Your task to perform on an android device: Go to Reddit.com Image 0: 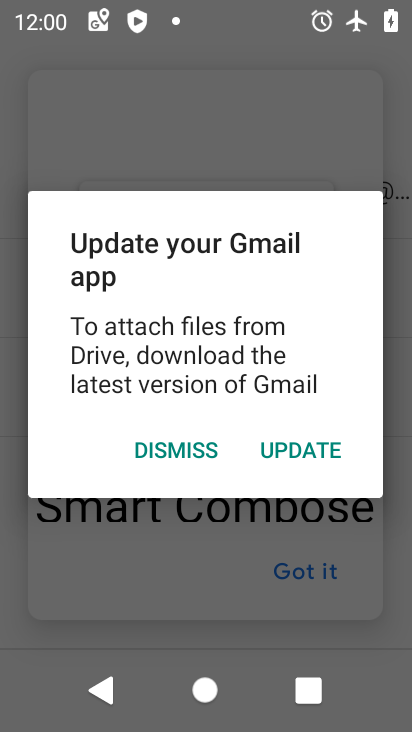
Step 0: press home button
Your task to perform on an android device: Go to Reddit.com Image 1: 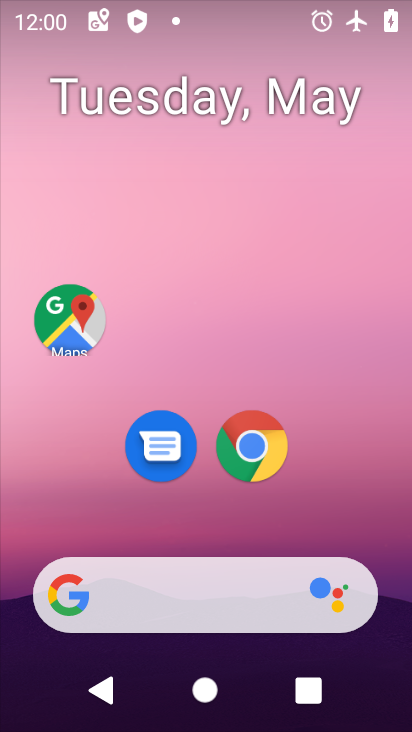
Step 1: drag from (238, 489) to (256, 327)
Your task to perform on an android device: Go to Reddit.com Image 2: 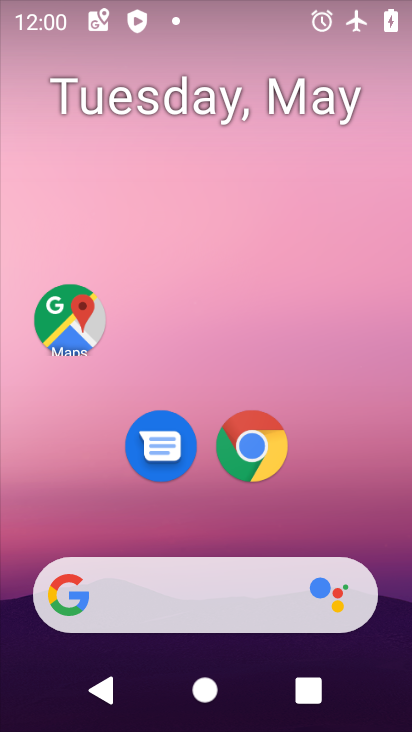
Step 2: click (254, 456)
Your task to perform on an android device: Go to Reddit.com Image 3: 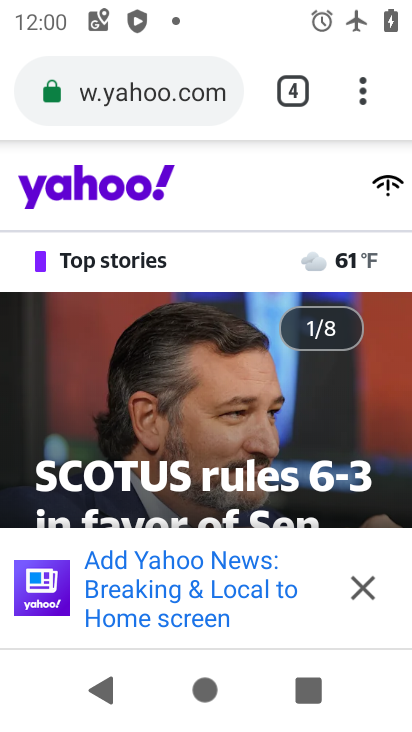
Step 3: click (355, 92)
Your task to perform on an android device: Go to Reddit.com Image 4: 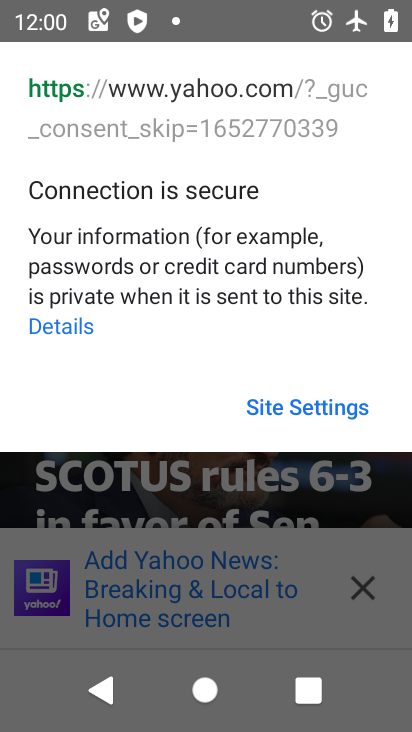
Step 4: press back button
Your task to perform on an android device: Go to Reddit.com Image 5: 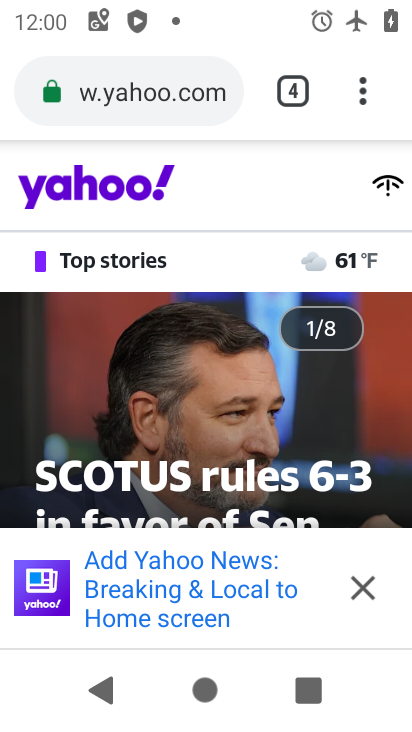
Step 5: click (359, 89)
Your task to perform on an android device: Go to Reddit.com Image 6: 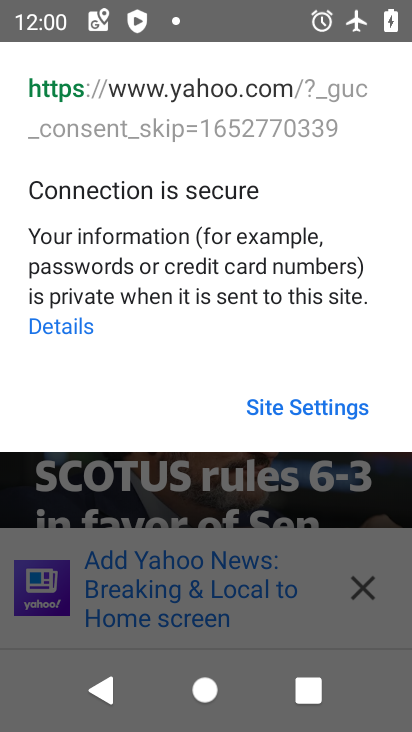
Step 6: press back button
Your task to perform on an android device: Go to Reddit.com Image 7: 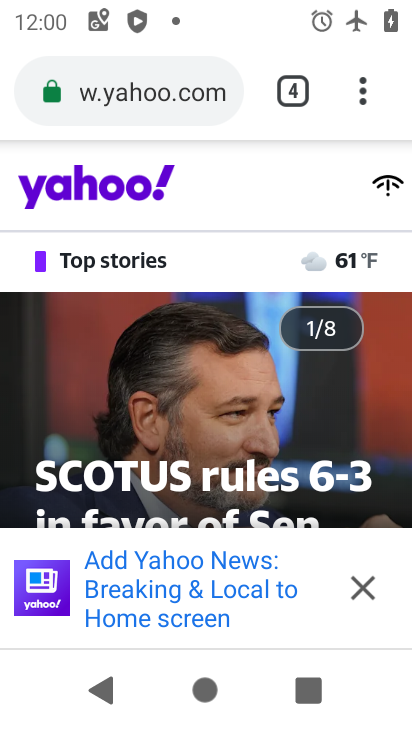
Step 7: click (291, 91)
Your task to perform on an android device: Go to Reddit.com Image 8: 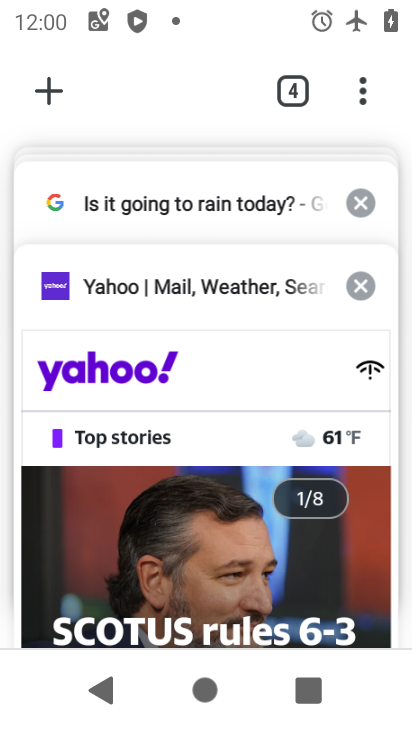
Step 8: drag from (223, 207) to (200, 618)
Your task to perform on an android device: Go to Reddit.com Image 9: 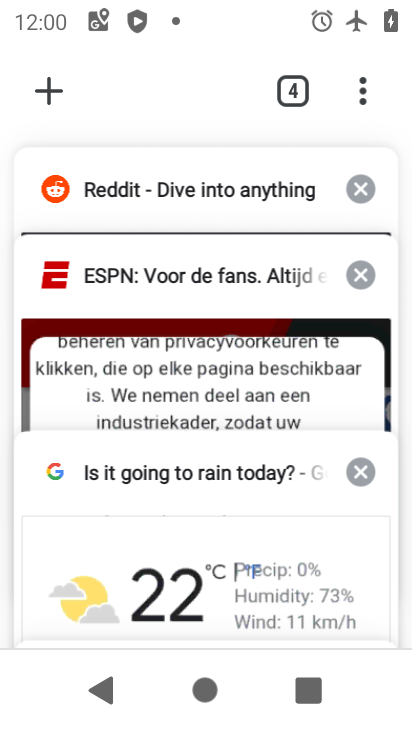
Step 9: click (188, 182)
Your task to perform on an android device: Go to Reddit.com Image 10: 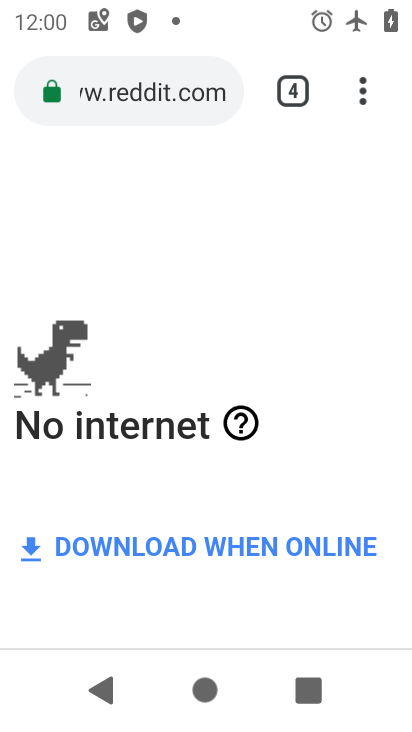
Step 10: drag from (321, 115) to (332, 401)
Your task to perform on an android device: Go to Reddit.com Image 11: 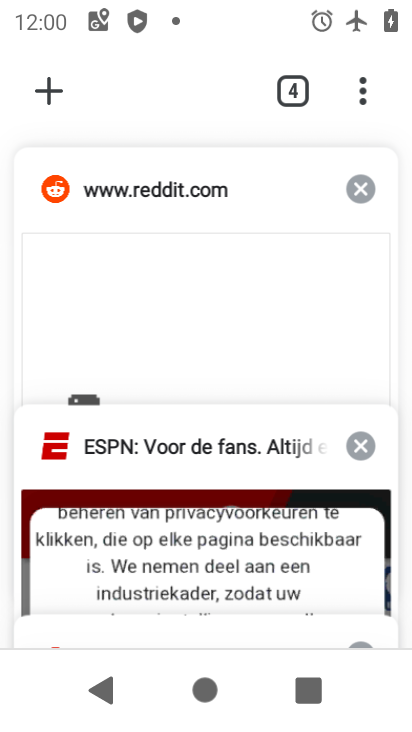
Step 11: click (52, 97)
Your task to perform on an android device: Go to Reddit.com Image 12: 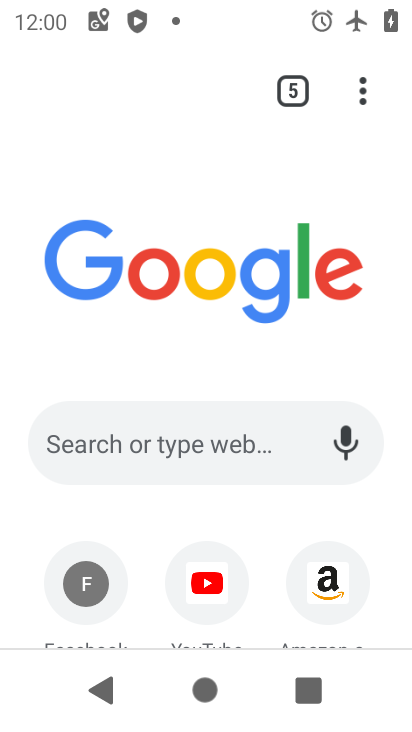
Step 12: click (184, 421)
Your task to perform on an android device: Go to Reddit.com Image 13: 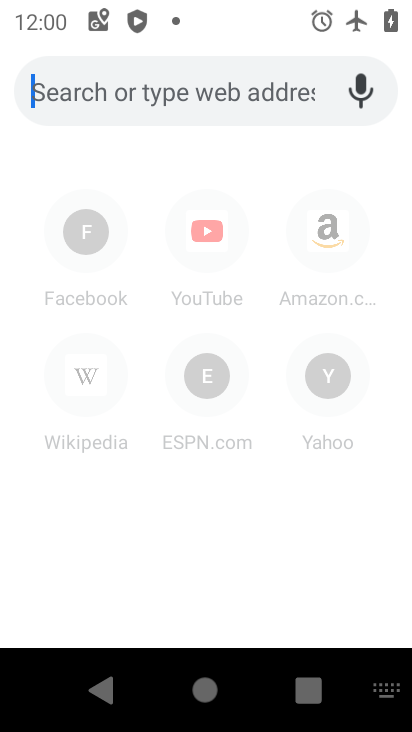
Step 13: click (190, 75)
Your task to perform on an android device: Go to Reddit.com Image 14: 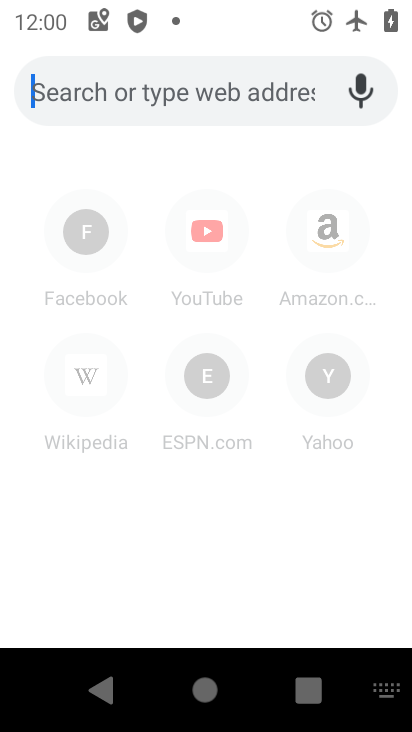
Step 14: type "Reddit.com"
Your task to perform on an android device: Go to Reddit.com Image 15: 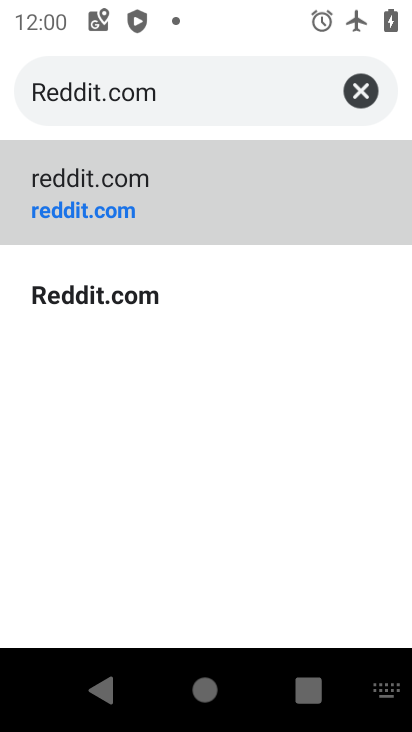
Step 15: click (137, 299)
Your task to perform on an android device: Go to Reddit.com Image 16: 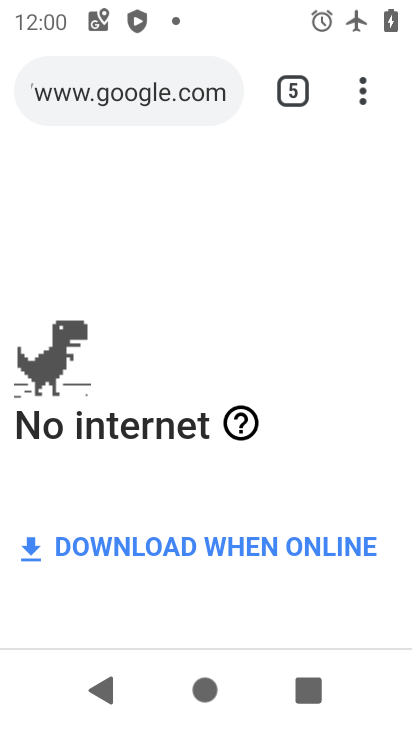
Step 16: task complete